Your task to perform on an android device: open a new tab in the chrome app Image 0: 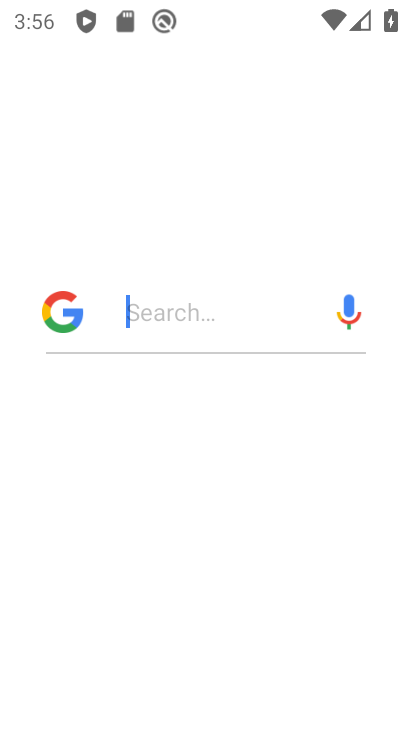
Step 0: drag from (202, 581) to (228, 343)
Your task to perform on an android device: open a new tab in the chrome app Image 1: 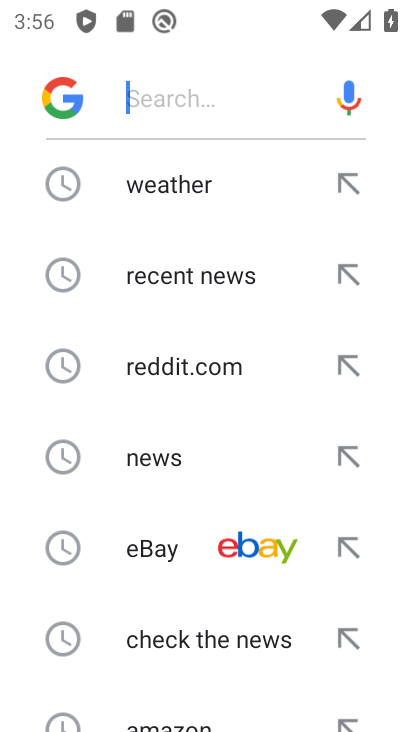
Step 1: press home button
Your task to perform on an android device: open a new tab in the chrome app Image 2: 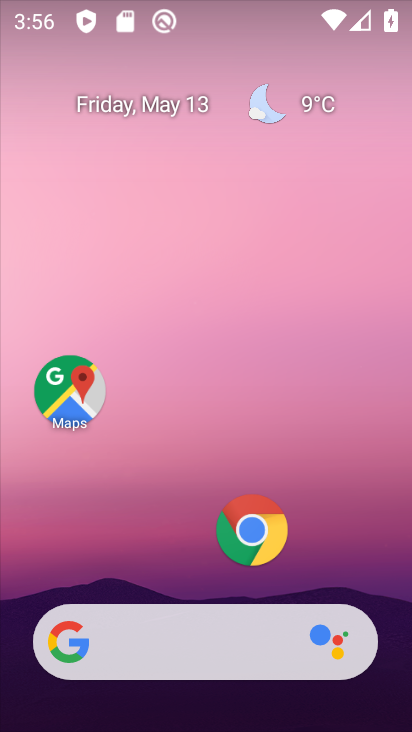
Step 2: click (246, 526)
Your task to perform on an android device: open a new tab in the chrome app Image 3: 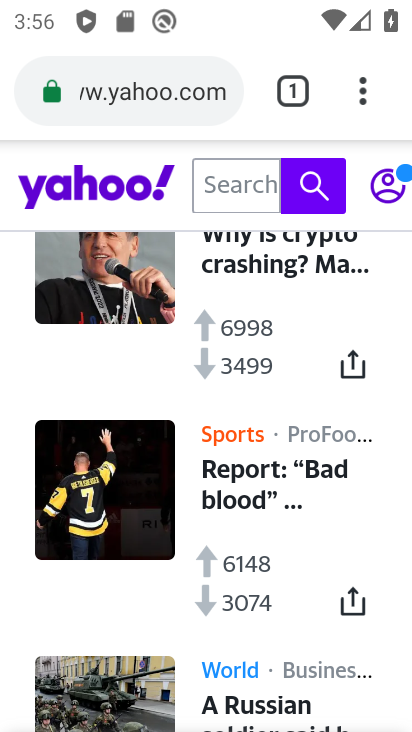
Step 3: click (289, 95)
Your task to perform on an android device: open a new tab in the chrome app Image 4: 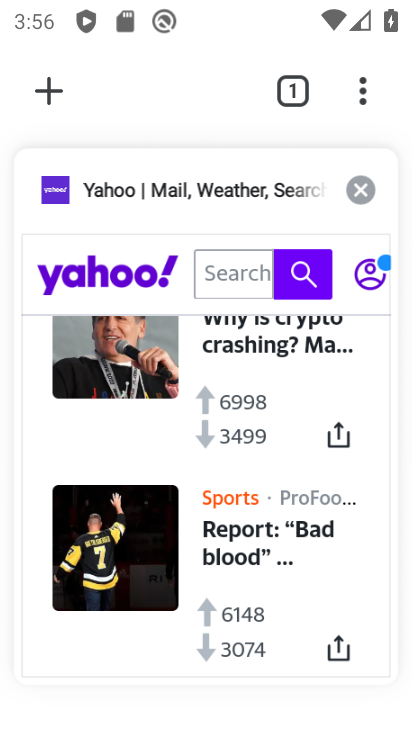
Step 4: click (54, 90)
Your task to perform on an android device: open a new tab in the chrome app Image 5: 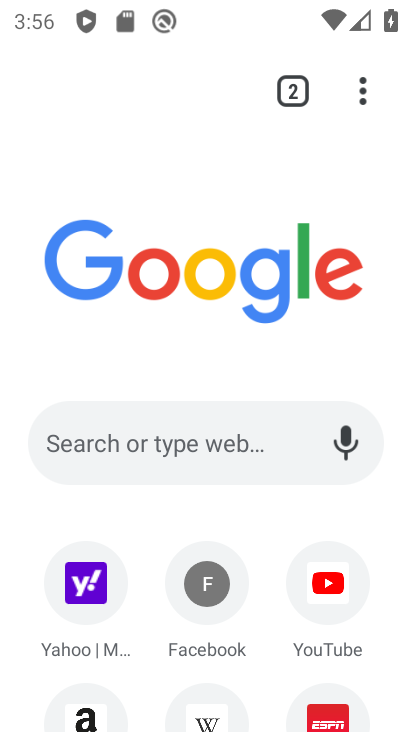
Step 5: task complete